Your task to perform on an android device: Search for Mexican restaurants on Maps Image 0: 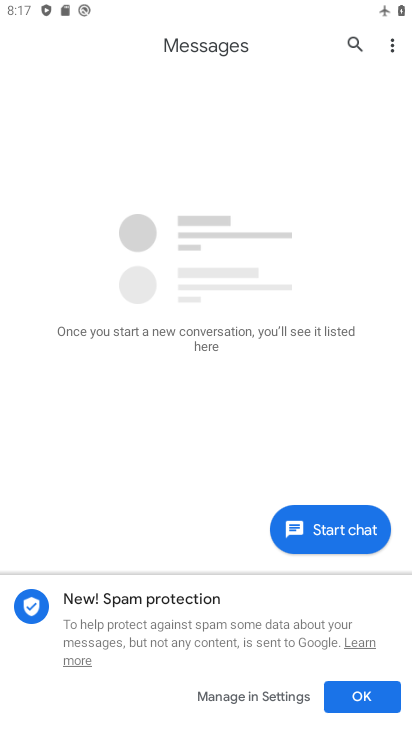
Step 0: press home button
Your task to perform on an android device: Search for Mexican restaurants on Maps Image 1: 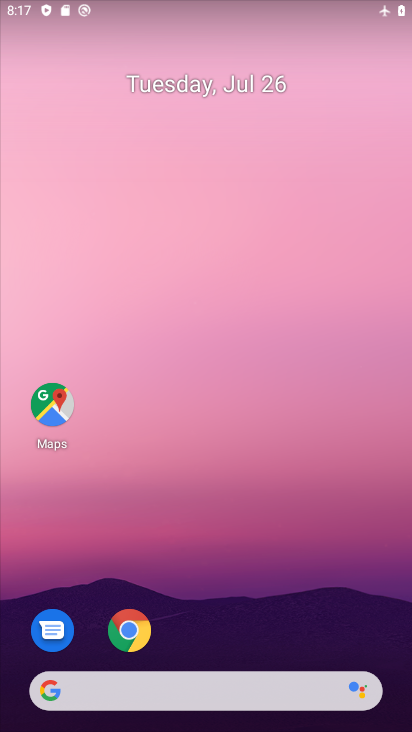
Step 1: drag from (273, 612) to (360, 6)
Your task to perform on an android device: Search for Mexican restaurants on Maps Image 2: 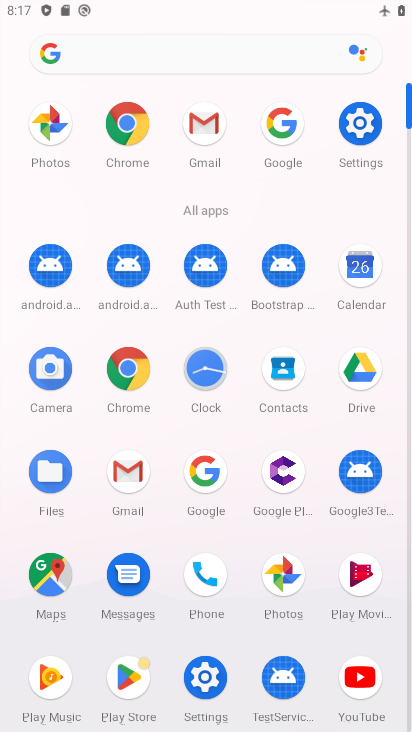
Step 2: click (58, 582)
Your task to perform on an android device: Search for Mexican restaurants on Maps Image 3: 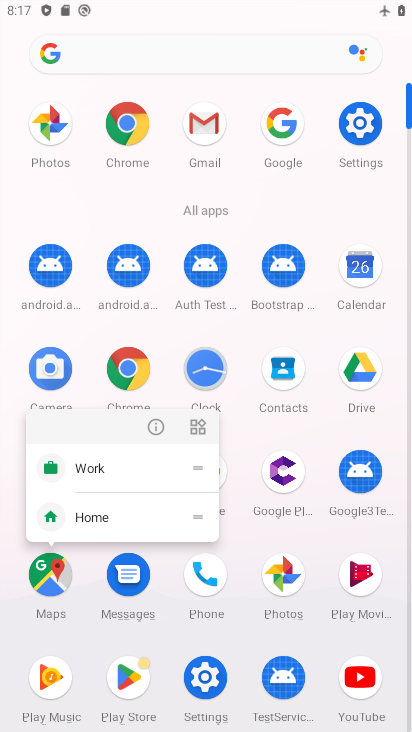
Step 3: click (58, 582)
Your task to perform on an android device: Search for Mexican restaurants on Maps Image 4: 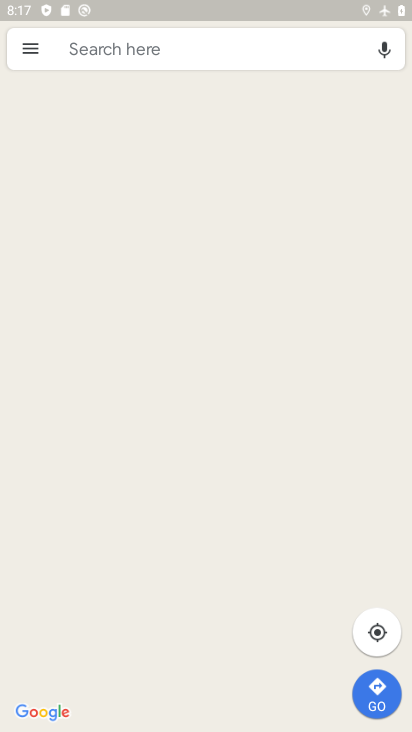
Step 4: click (180, 46)
Your task to perform on an android device: Search for Mexican restaurants on Maps Image 5: 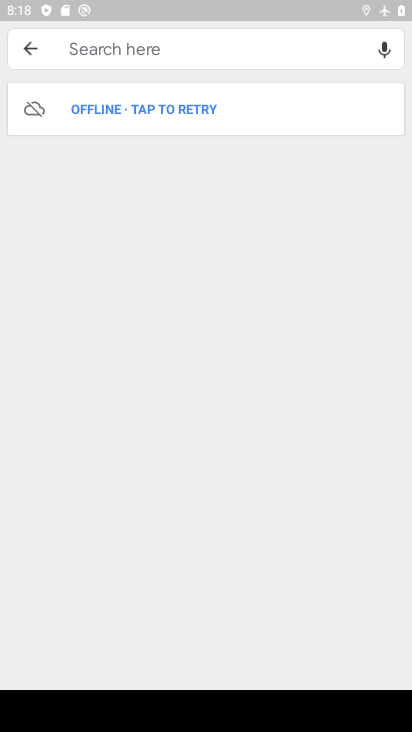
Step 5: type "Mexican restaurant"
Your task to perform on an android device: Search for Mexican restaurants on Maps Image 6: 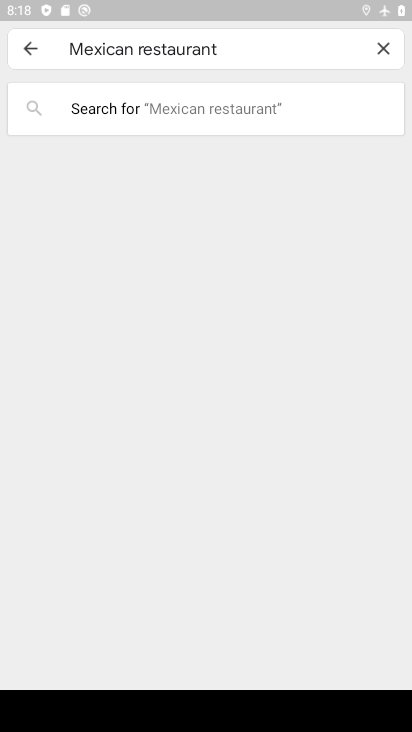
Step 6: press enter
Your task to perform on an android device: Search for Mexican restaurants on Maps Image 7: 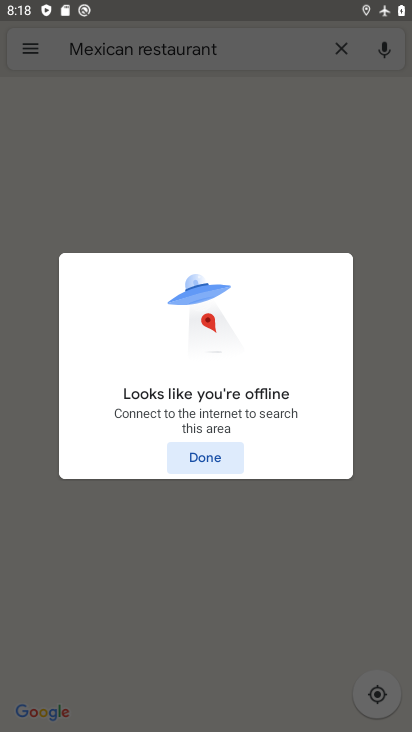
Step 7: task complete